Your task to perform on an android device: Open the phone app and click the voicemail tab. Image 0: 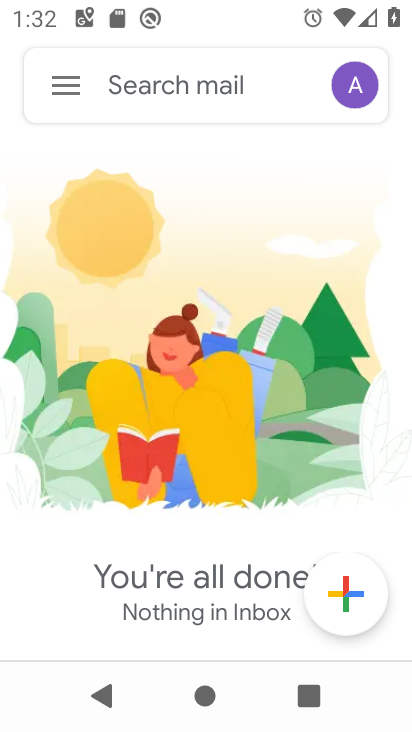
Step 0: press home button
Your task to perform on an android device: Open the phone app and click the voicemail tab. Image 1: 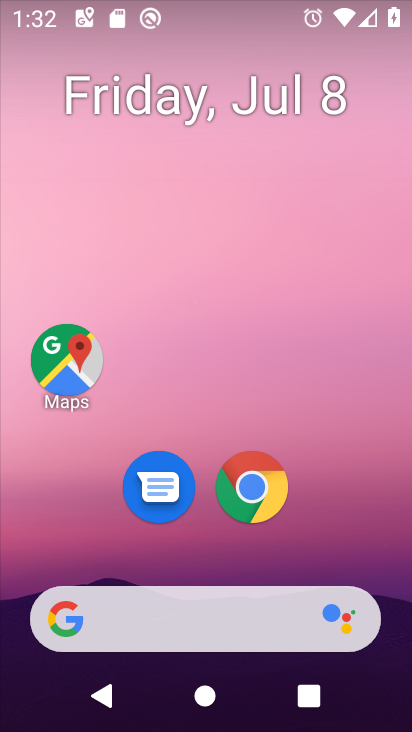
Step 1: drag from (365, 509) to (364, 123)
Your task to perform on an android device: Open the phone app and click the voicemail tab. Image 2: 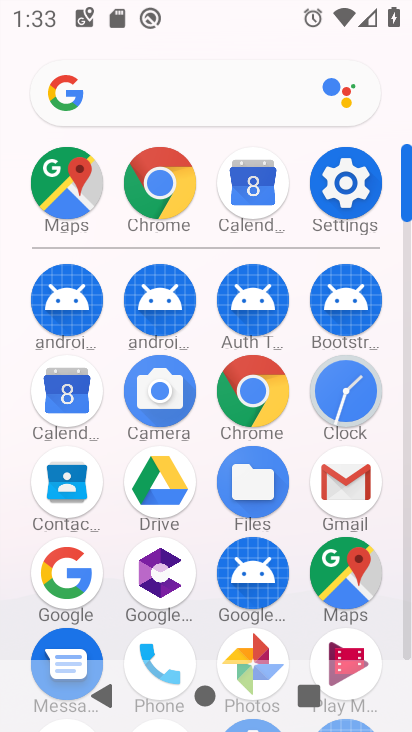
Step 2: drag from (384, 491) to (394, 253)
Your task to perform on an android device: Open the phone app and click the voicemail tab. Image 3: 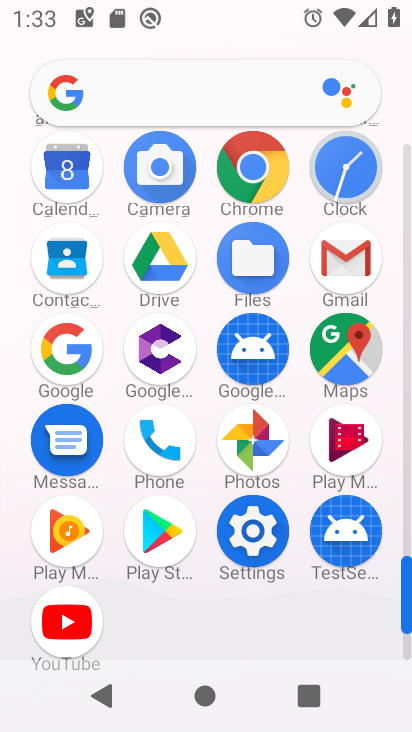
Step 3: click (357, 440)
Your task to perform on an android device: Open the phone app and click the voicemail tab. Image 4: 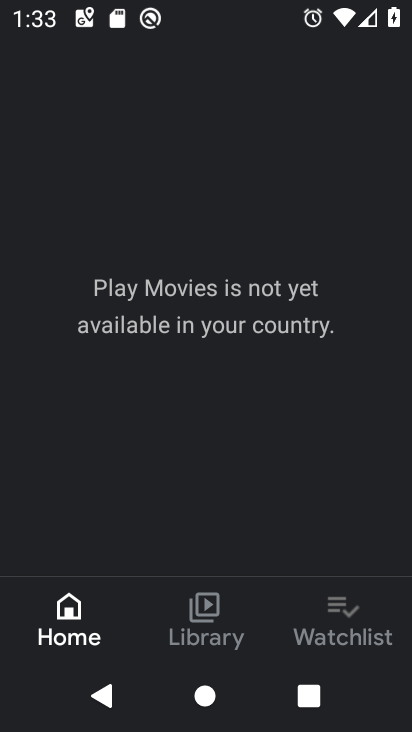
Step 4: click (344, 630)
Your task to perform on an android device: Open the phone app and click the voicemail tab. Image 5: 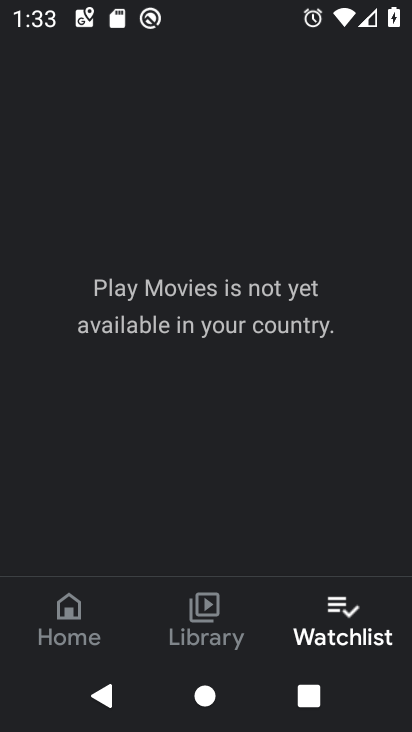
Step 5: task complete